Your task to perform on an android device: What's the latest news in space technology? Image 0: 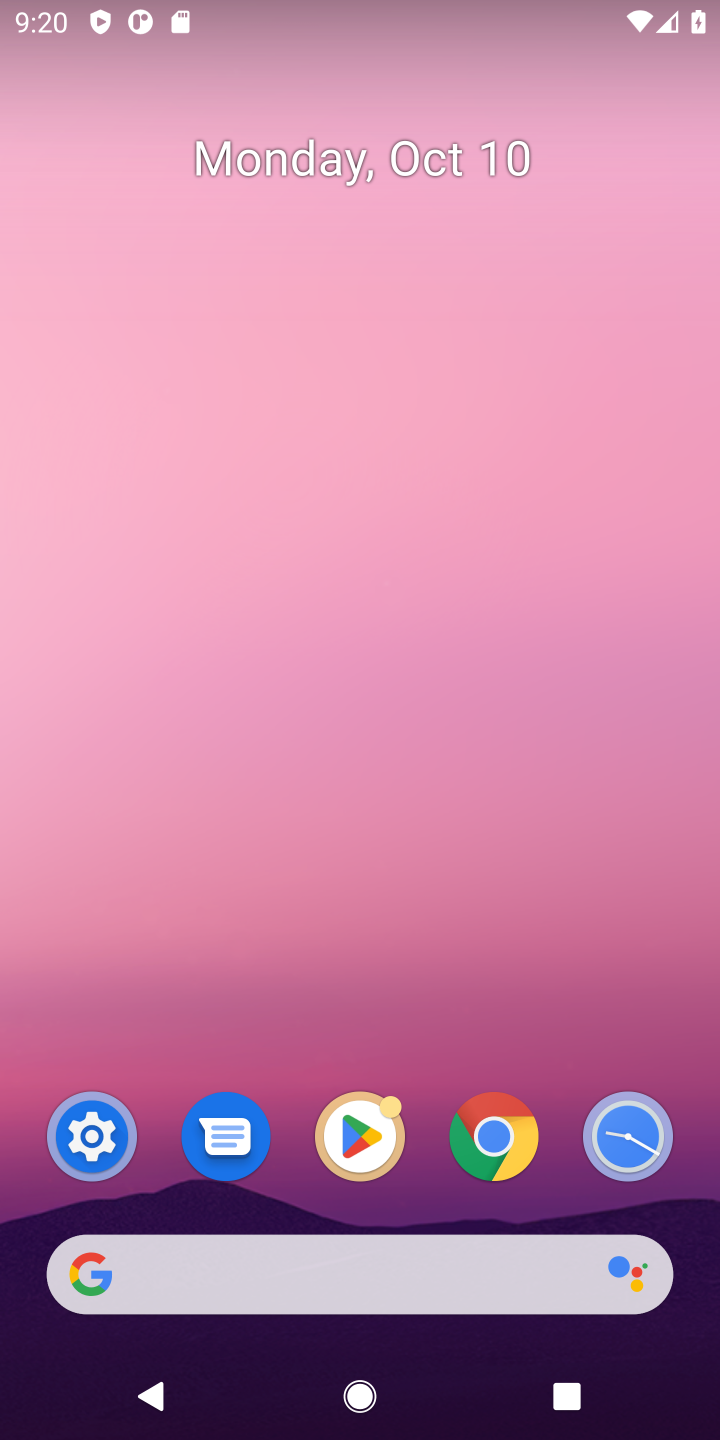
Step 0: click (485, 1142)
Your task to perform on an android device: What's the latest news in space technology? Image 1: 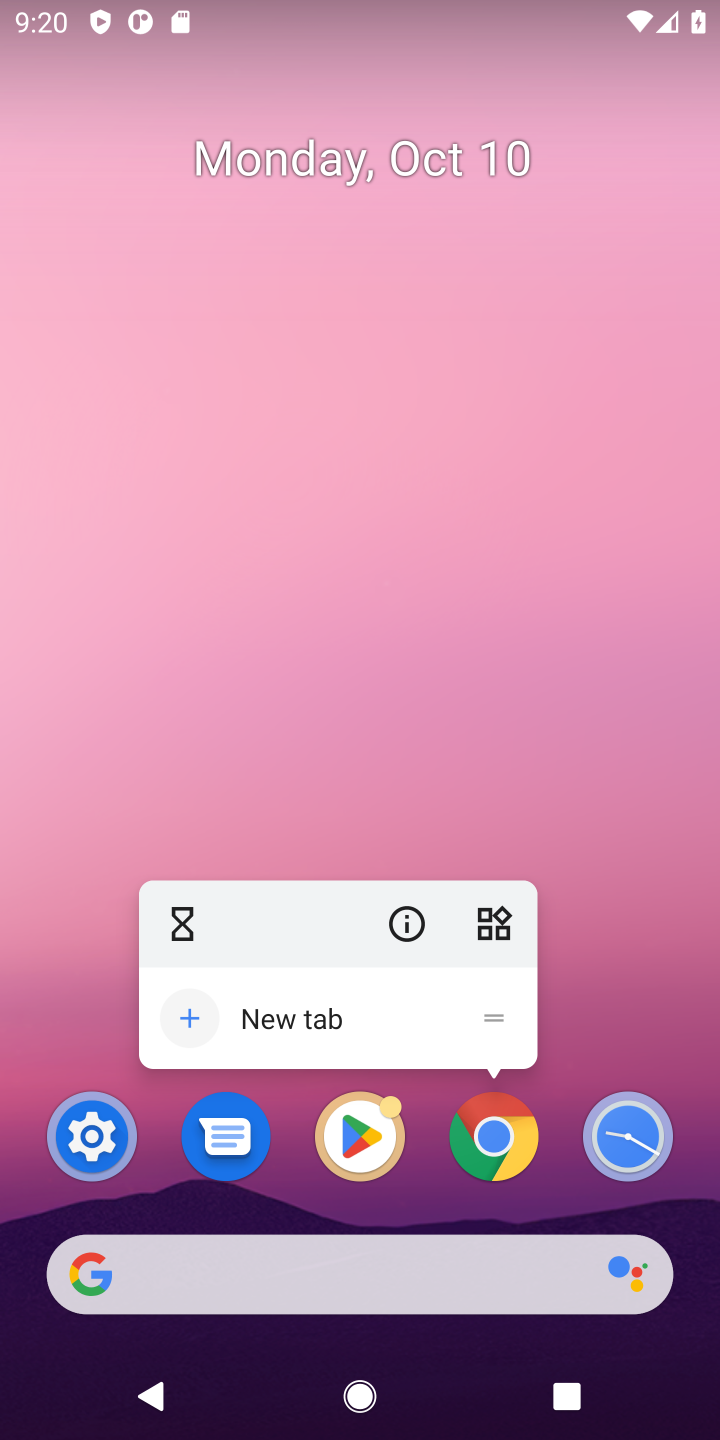
Step 1: click (495, 1141)
Your task to perform on an android device: What's the latest news in space technology? Image 2: 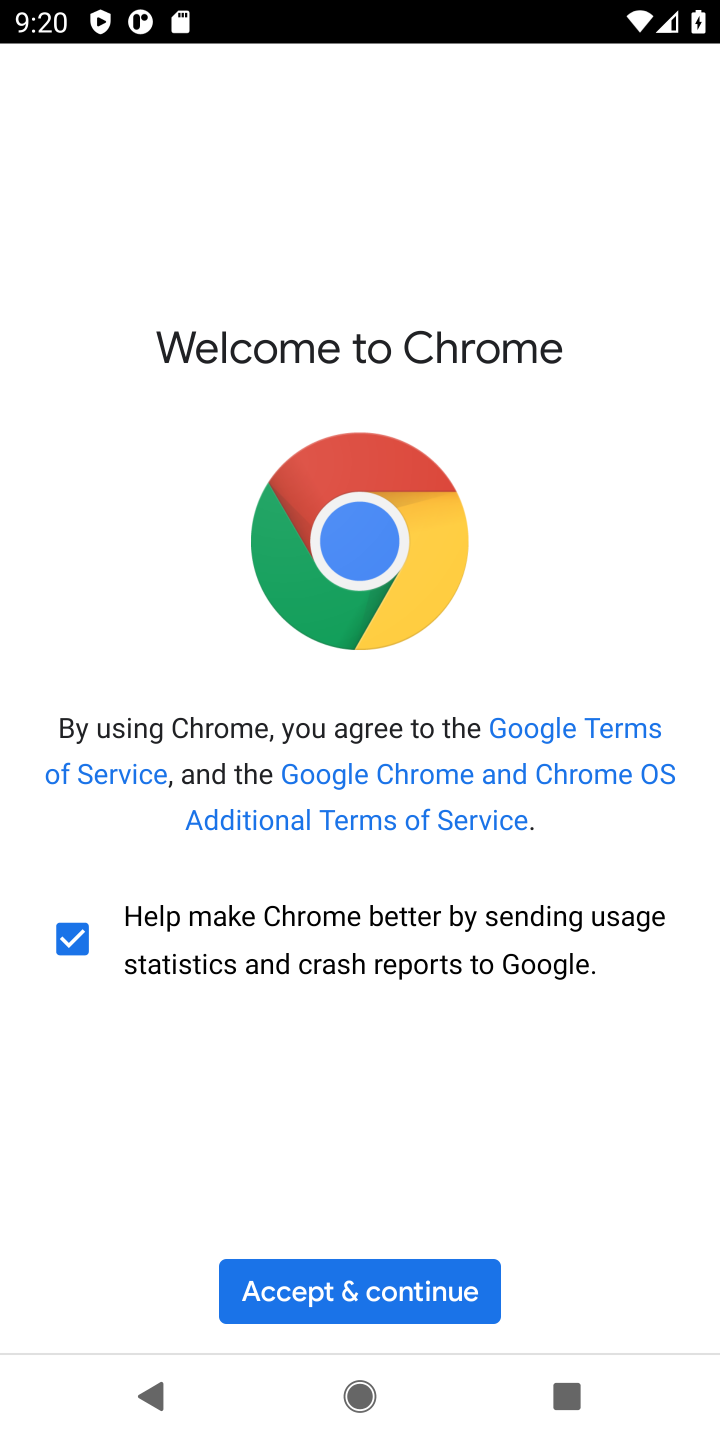
Step 2: click (340, 1301)
Your task to perform on an android device: What's the latest news in space technology? Image 3: 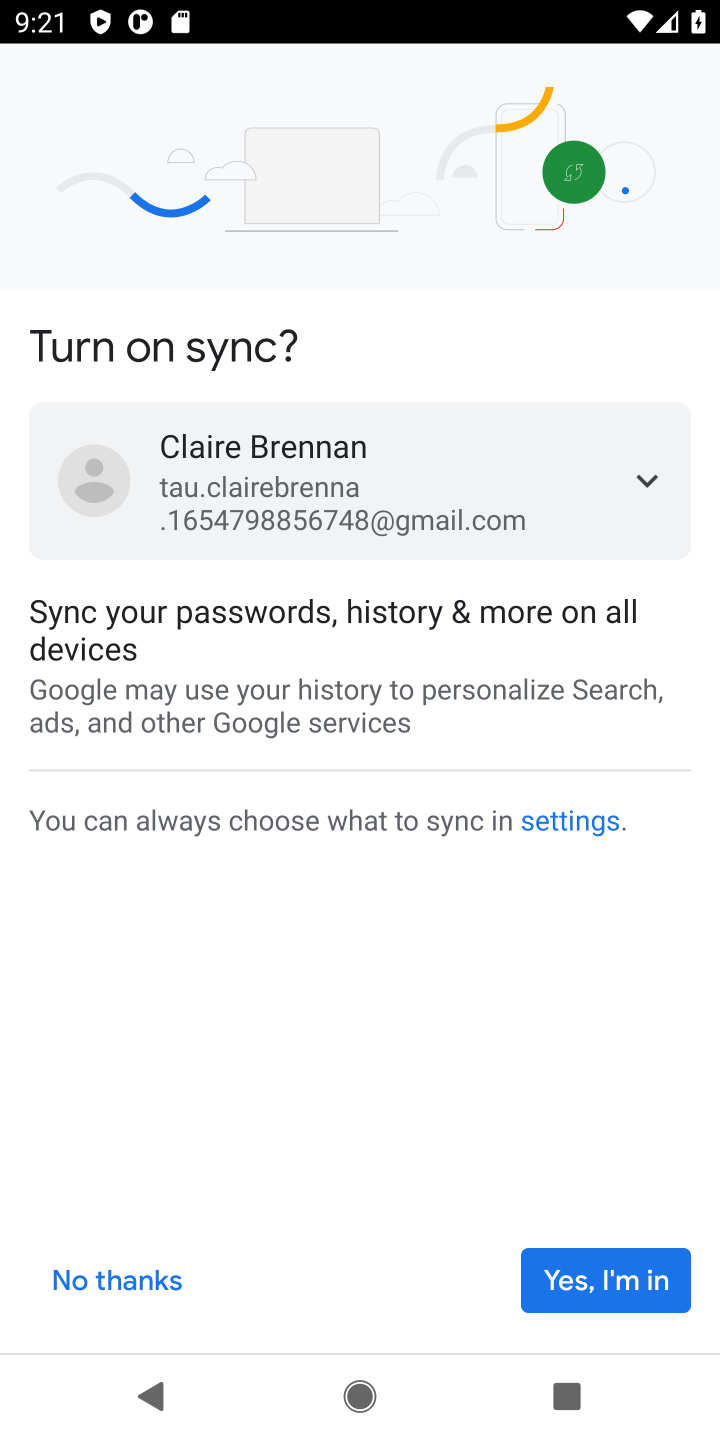
Step 3: click (129, 1272)
Your task to perform on an android device: What's the latest news in space technology? Image 4: 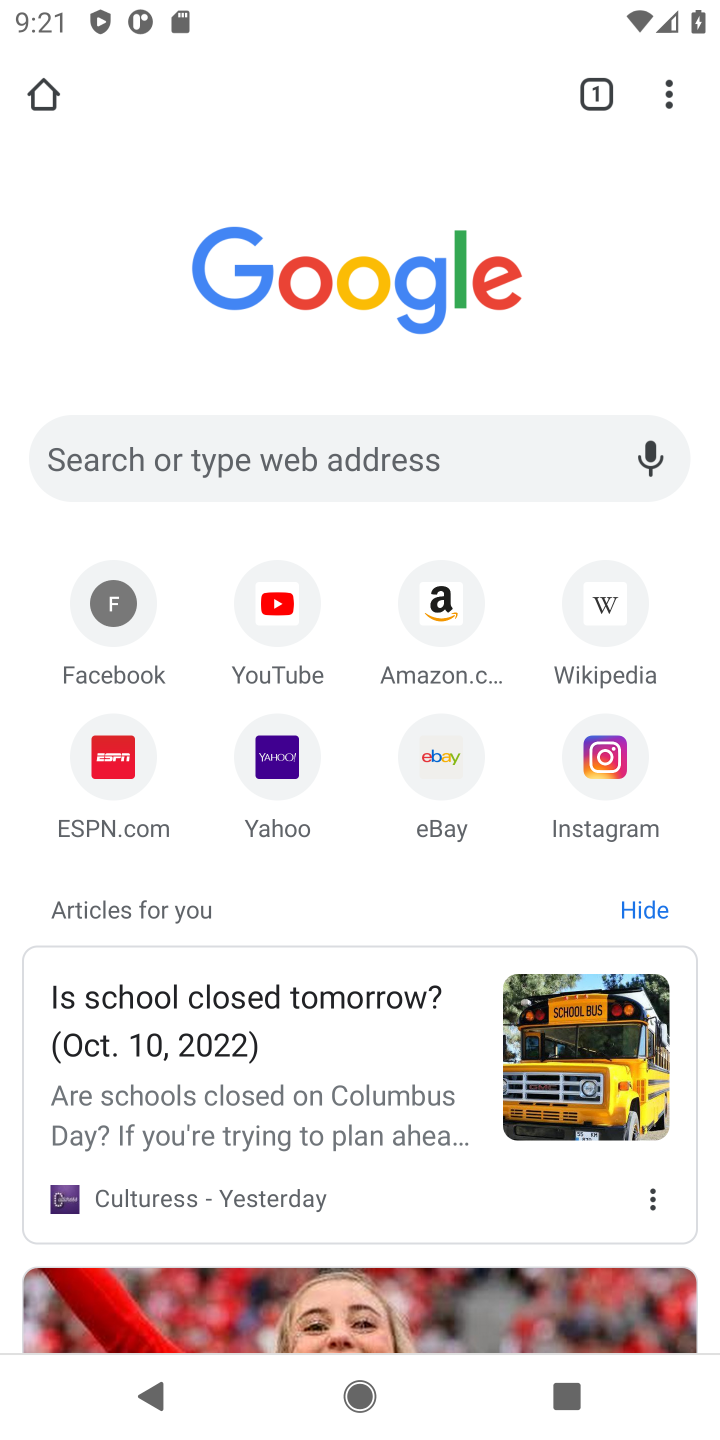
Step 4: click (337, 457)
Your task to perform on an android device: What's the latest news in space technology? Image 5: 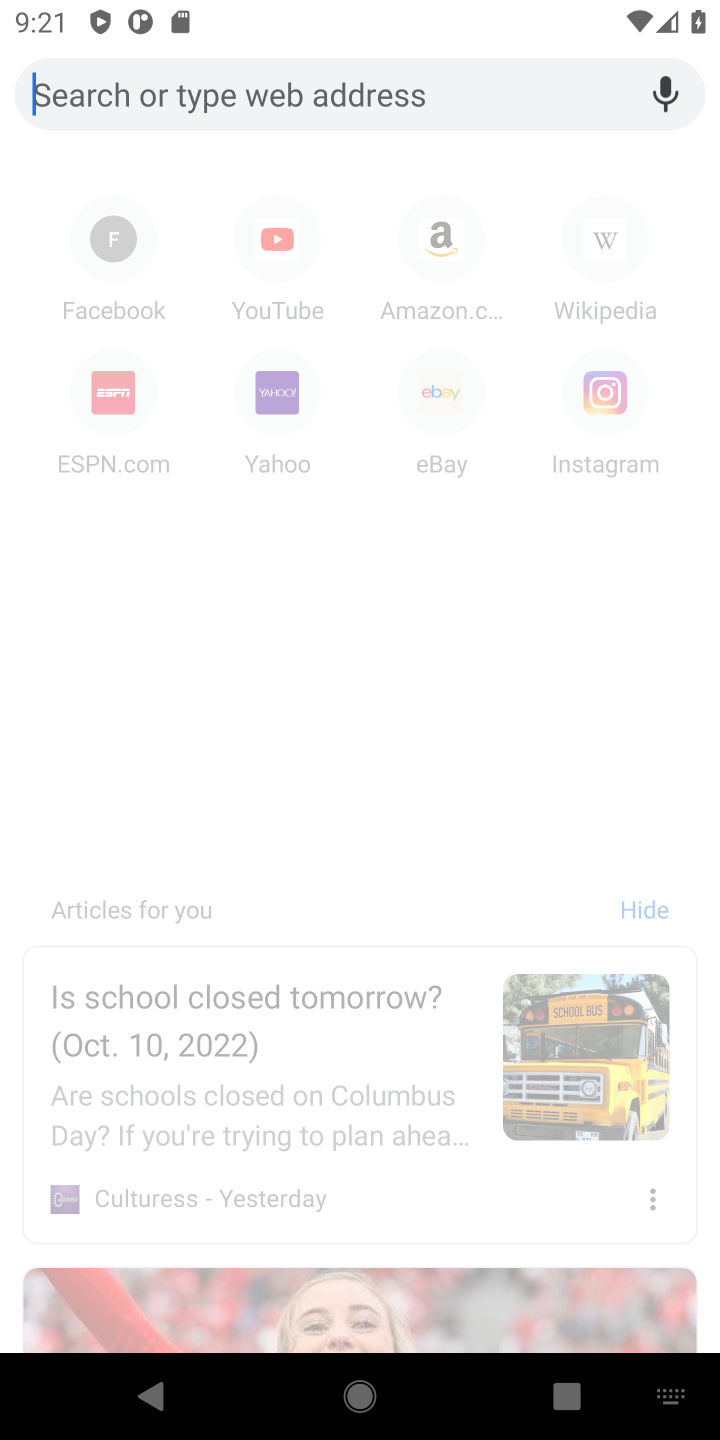
Step 5: type "space technology"
Your task to perform on an android device: What's the latest news in space technology? Image 6: 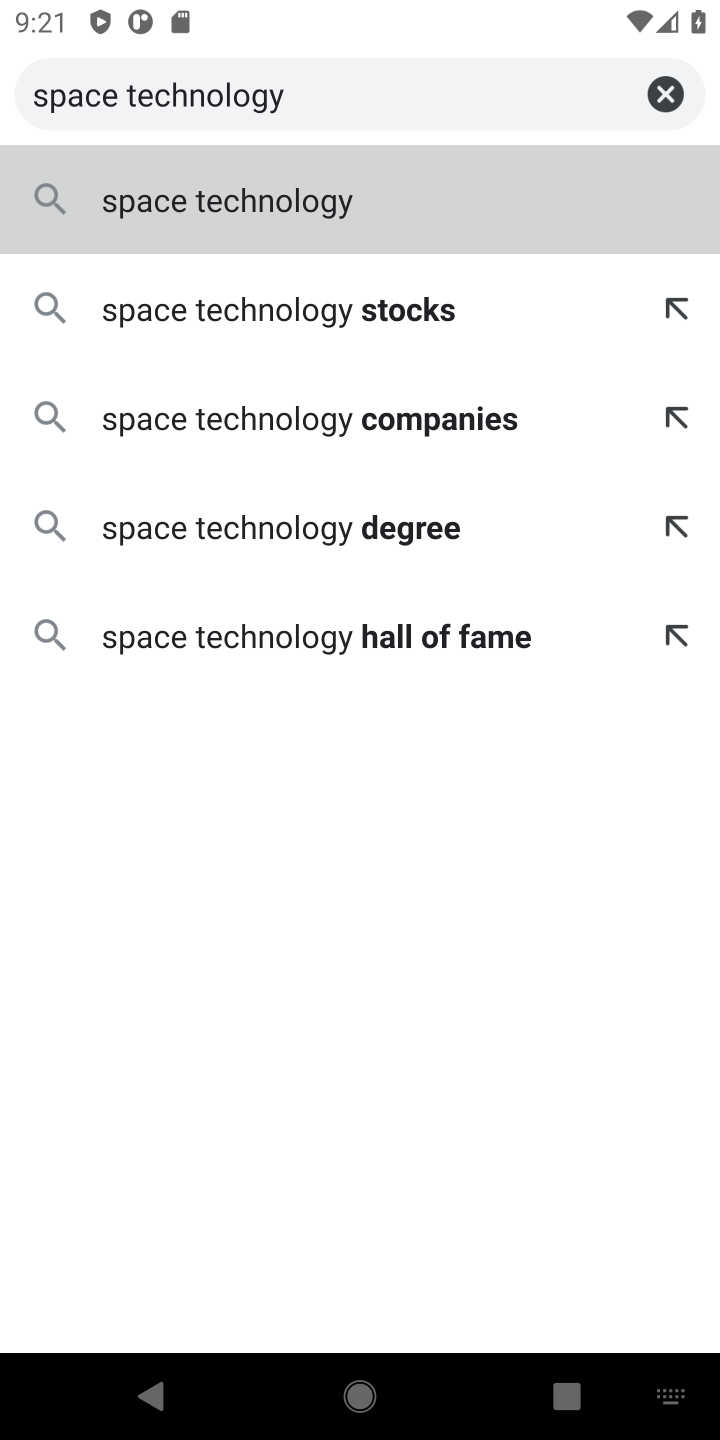
Step 6: press enter
Your task to perform on an android device: What's the latest news in space technology? Image 7: 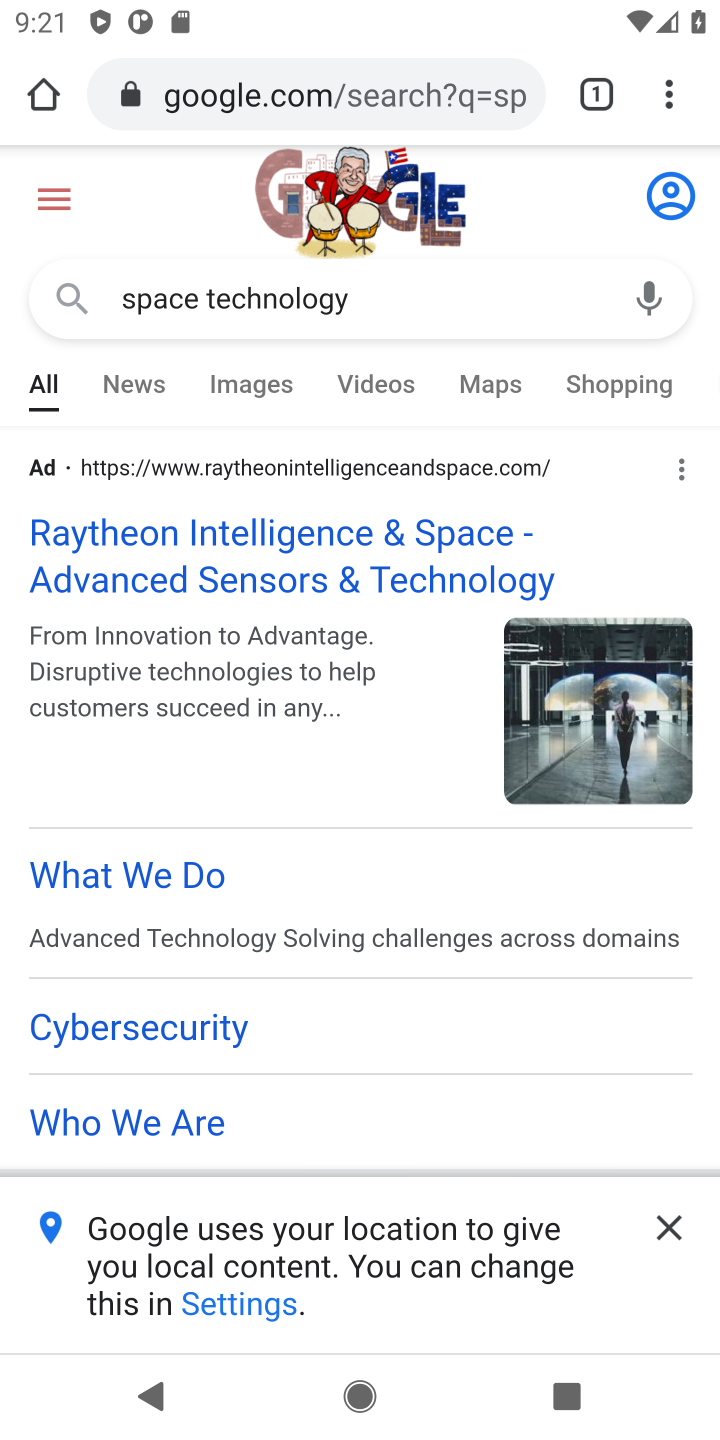
Step 7: click (146, 389)
Your task to perform on an android device: What's the latest news in space technology? Image 8: 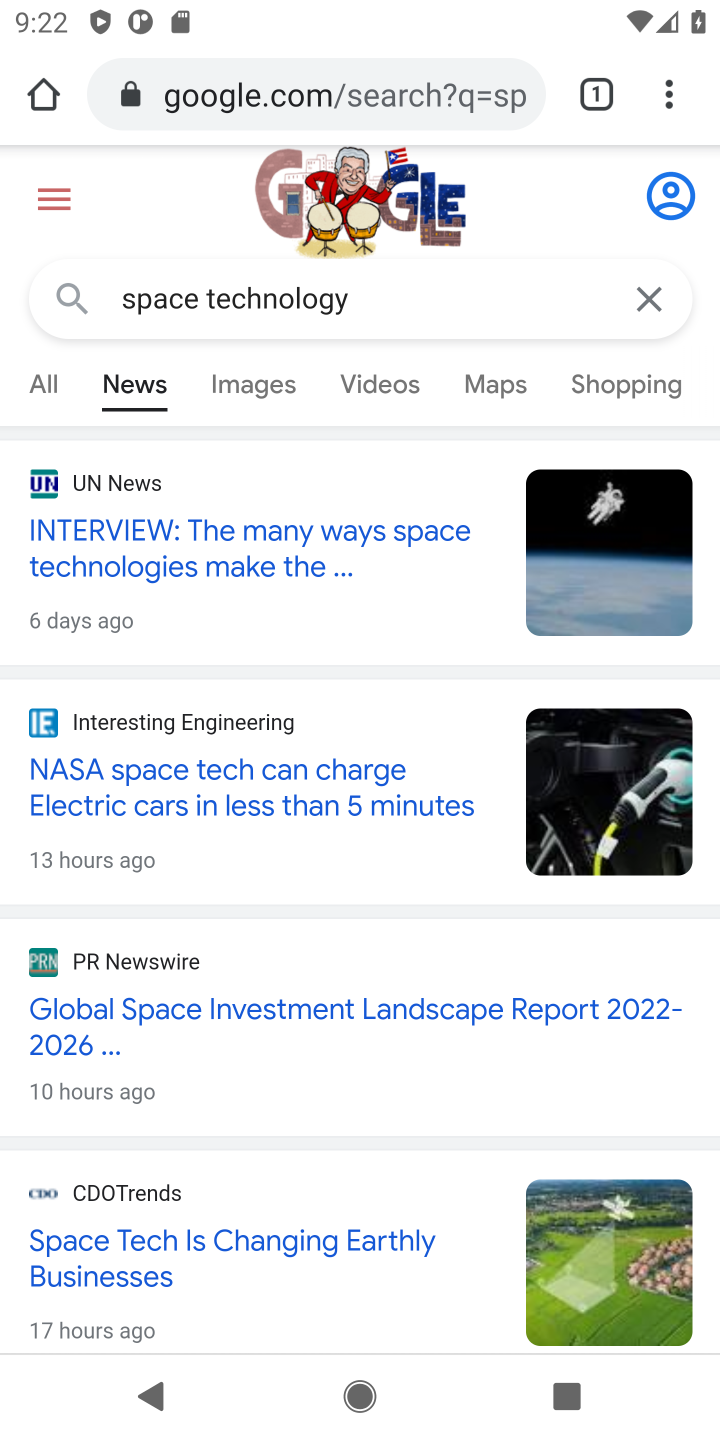
Step 8: task complete